Your task to perform on an android device: allow notifications from all sites in the chrome app Image 0: 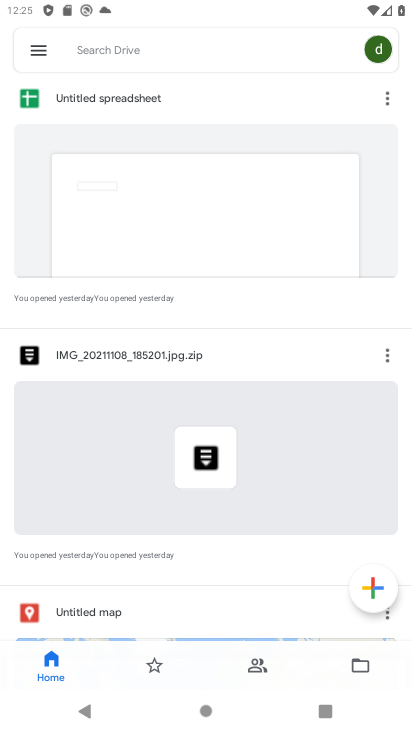
Step 0: press home button
Your task to perform on an android device: allow notifications from all sites in the chrome app Image 1: 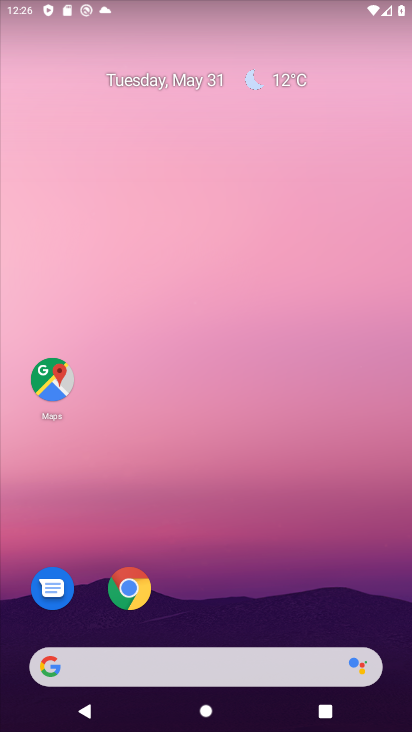
Step 1: click (137, 596)
Your task to perform on an android device: allow notifications from all sites in the chrome app Image 2: 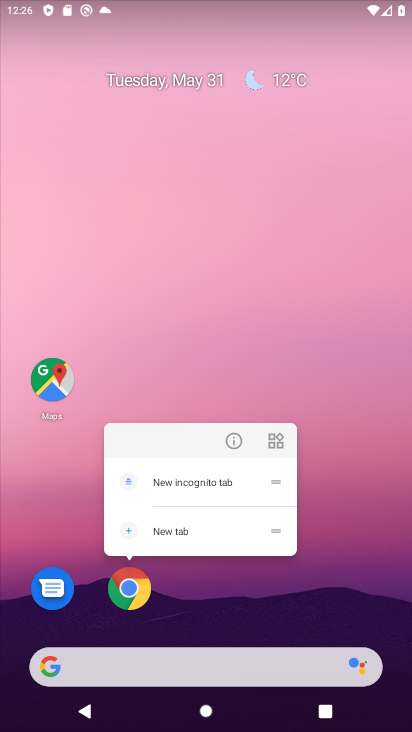
Step 2: click (134, 589)
Your task to perform on an android device: allow notifications from all sites in the chrome app Image 3: 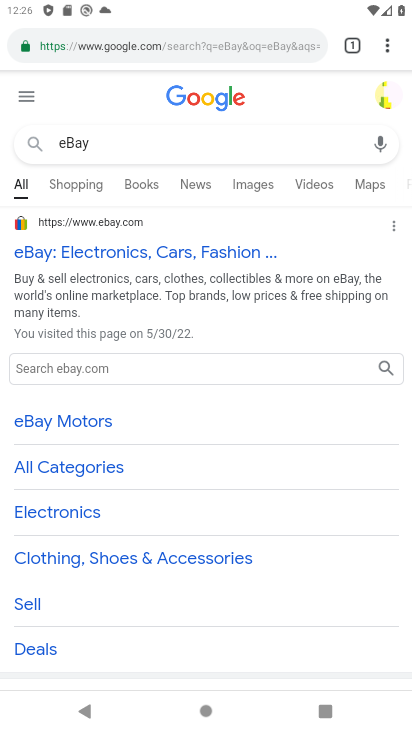
Step 3: click (382, 49)
Your task to perform on an android device: allow notifications from all sites in the chrome app Image 4: 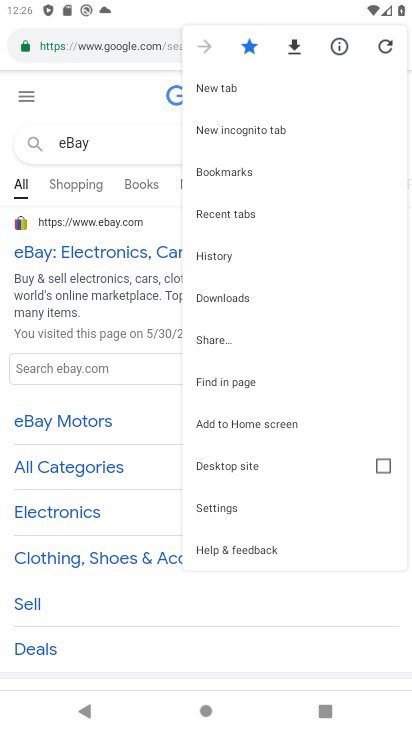
Step 4: click (225, 506)
Your task to perform on an android device: allow notifications from all sites in the chrome app Image 5: 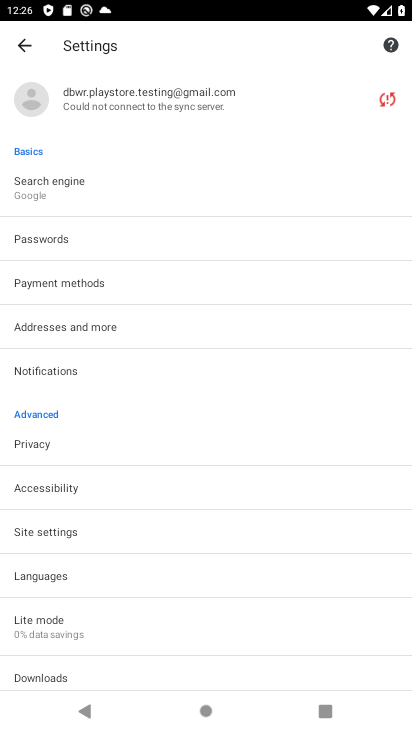
Step 5: drag from (181, 659) to (239, 372)
Your task to perform on an android device: allow notifications from all sites in the chrome app Image 6: 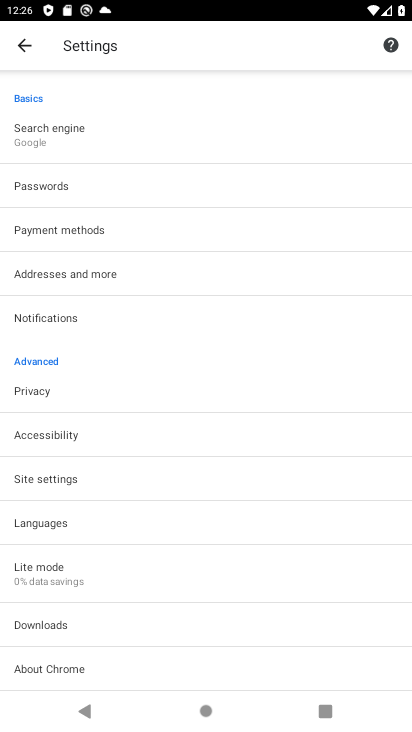
Step 6: drag from (230, 612) to (238, 313)
Your task to perform on an android device: allow notifications from all sites in the chrome app Image 7: 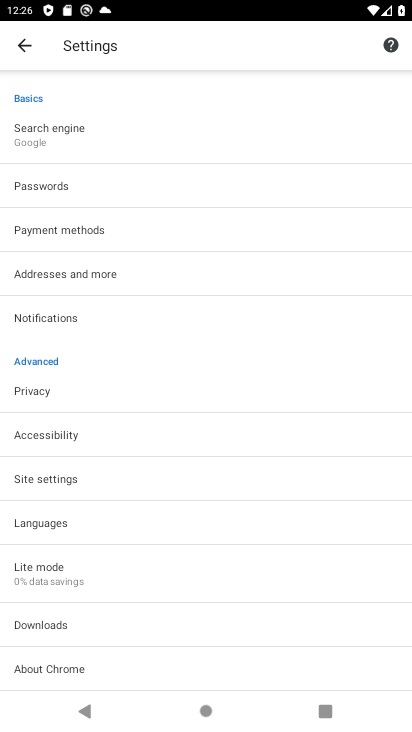
Step 7: drag from (161, 248) to (170, 514)
Your task to perform on an android device: allow notifications from all sites in the chrome app Image 8: 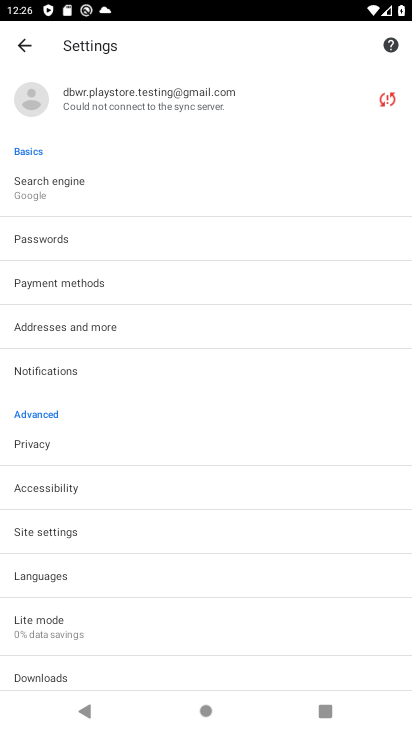
Step 8: click (73, 533)
Your task to perform on an android device: allow notifications from all sites in the chrome app Image 9: 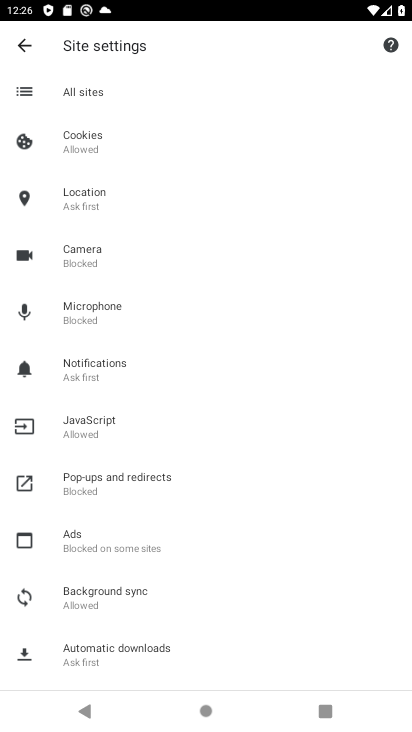
Step 9: click (87, 375)
Your task to perform on an android device: allow notifications from all sites in the chrome app Image 10: 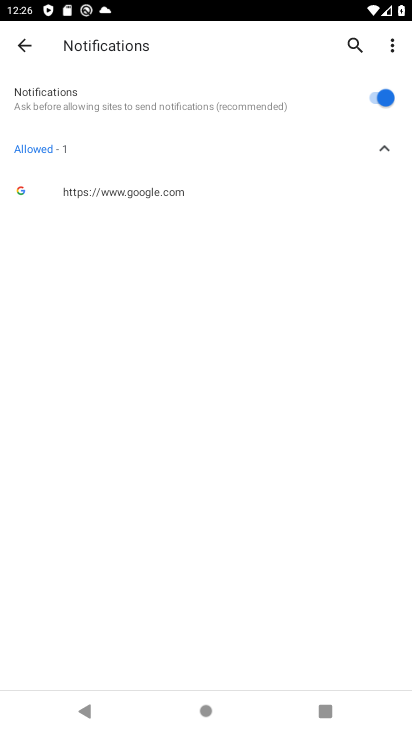
Step 10: task complete